Your task to perform on an android device: Open location settings Image 0: 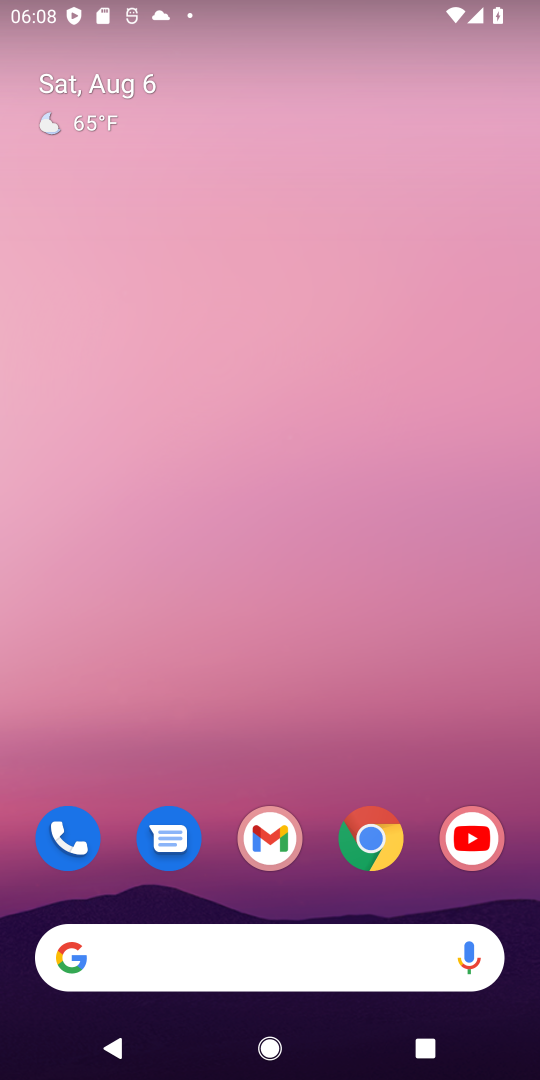
Step 0: drag from (266, 789) to (308, 7)
Your task to perform on an android device: Open location settings Image 1: 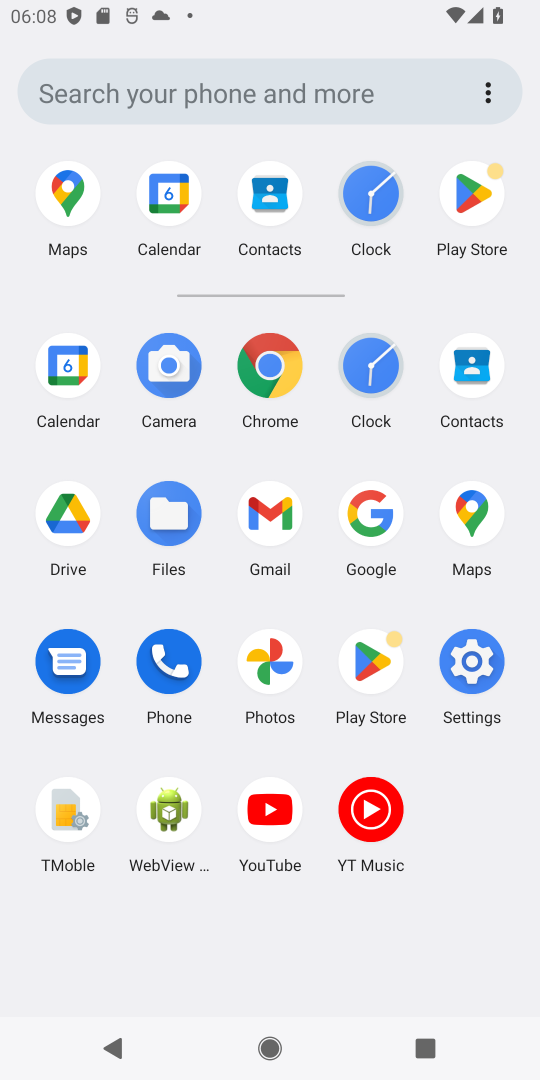
Step 1: click (475, 688)
Your task to perform on an android device: Open location settings Image 2: 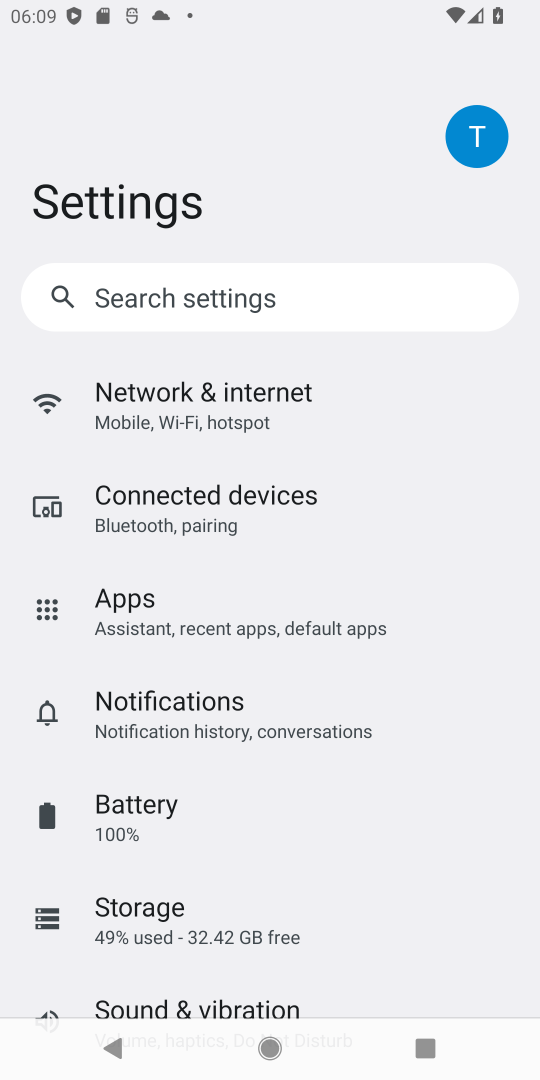
Step 2: drag from (207, 834) to (263, 215)
Your task to perform on an android device: Open location settings Image 3: 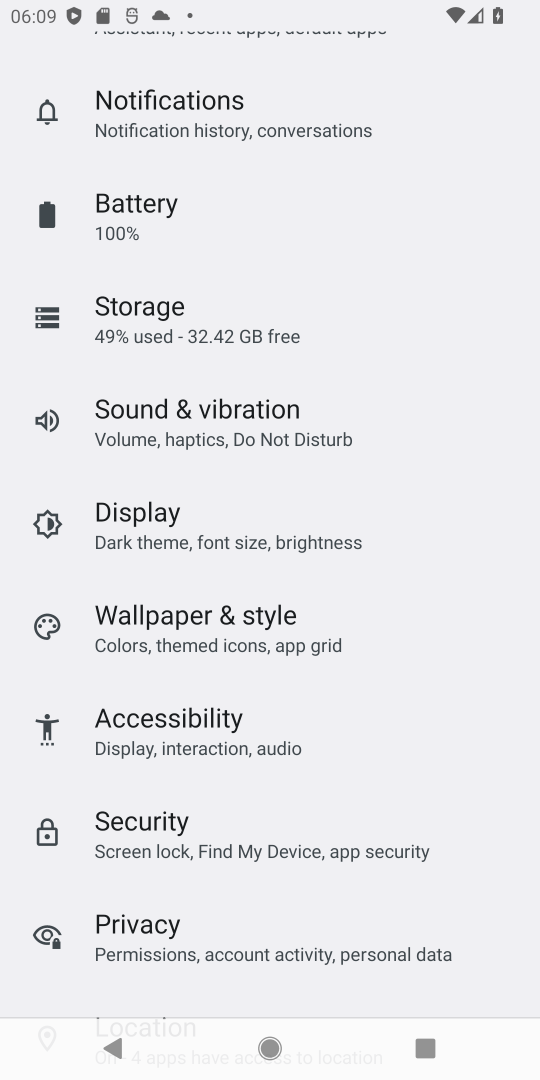
Step 3: drag from (167, 680) to (222, 310)
Your task to perform on an android device: Open location settings Image 4: 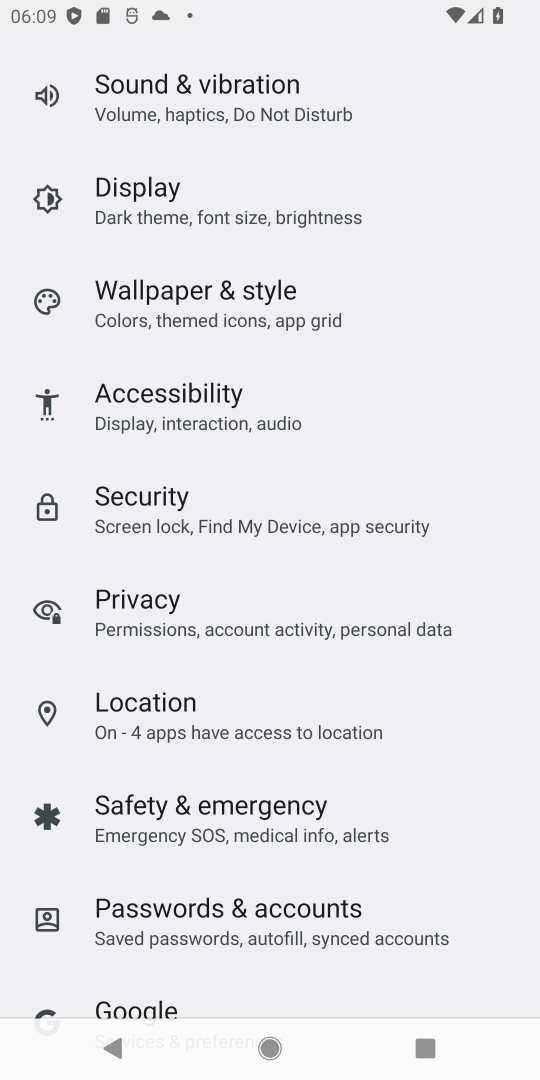
Step 4: click (174, 694)
Your task to perform on an android device: Open location settings Image 5: 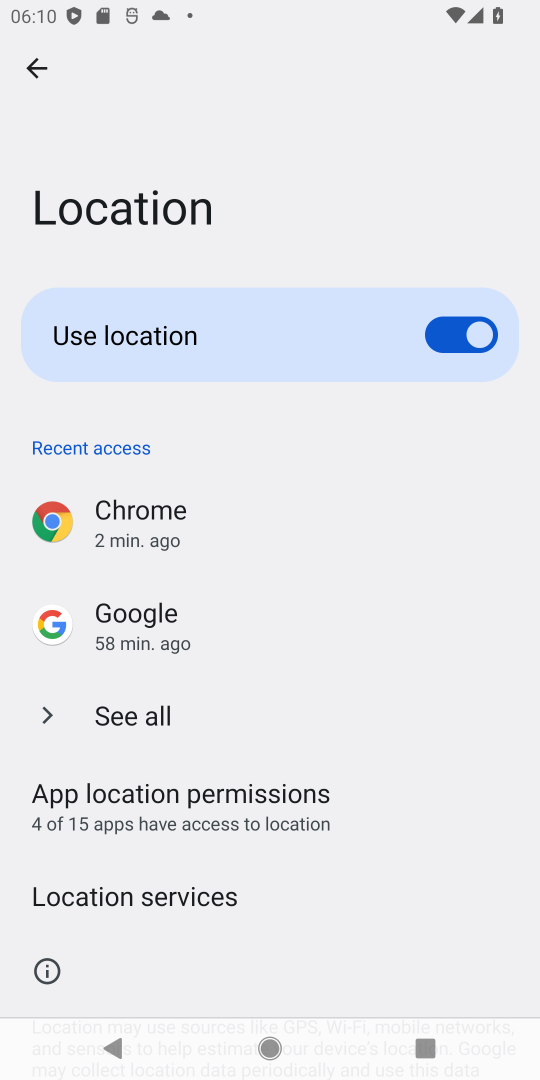
Step 5: task complete